Your task to perform on an android device: Search for pizza restaurants on Maps Image 0: 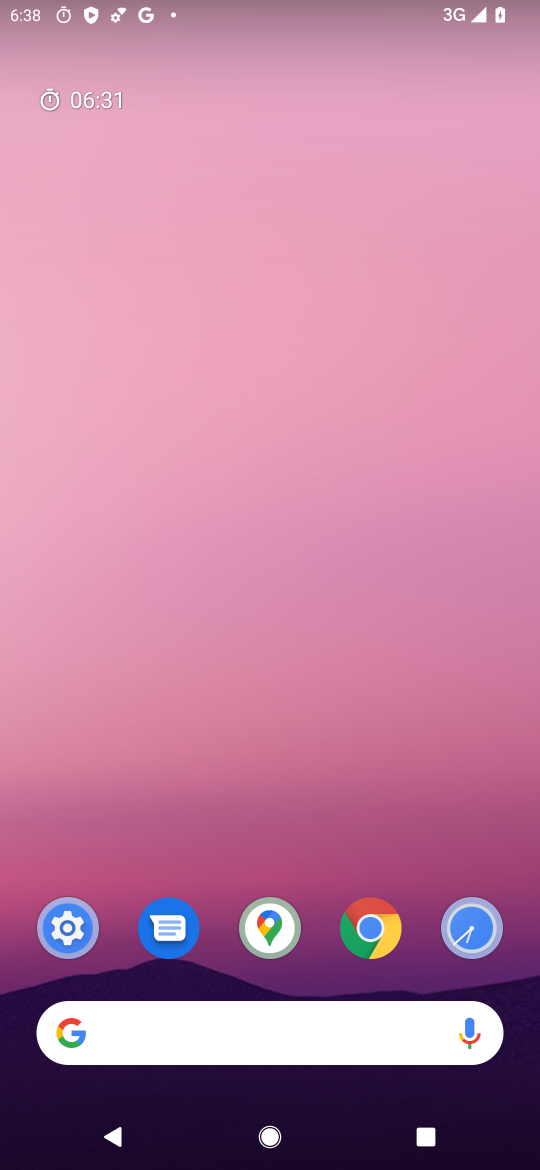
Step 0: drag from (277, 822) to (284, 216)
Your task to perform on an android device: Search for pizza restaurants on Maps Image 1: 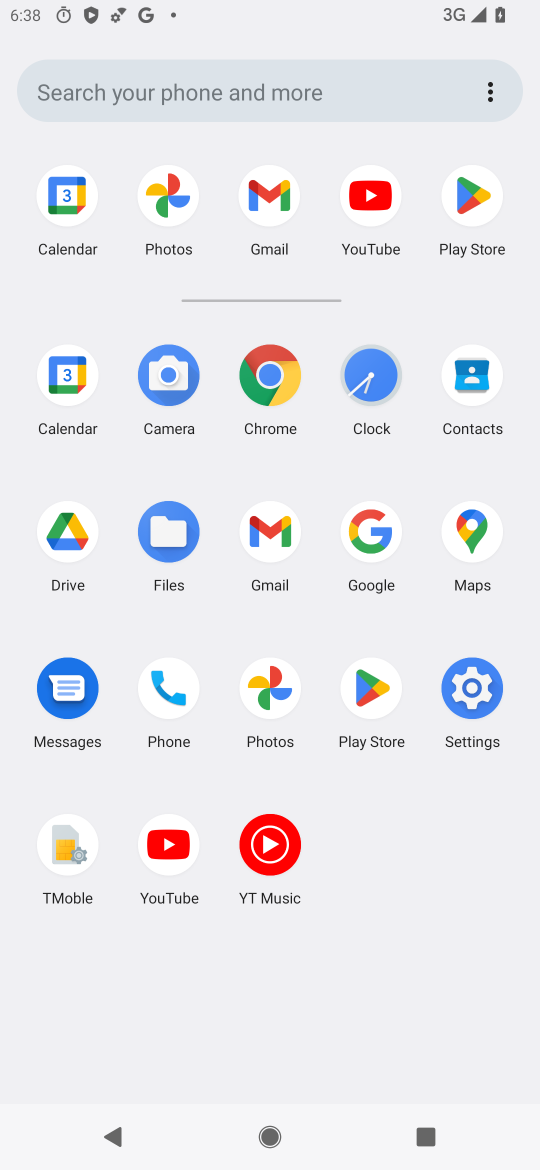
Step 1: click (472, 542)
Your task to perform on an android device: Search for pizza restaurants on Maps Image 2: 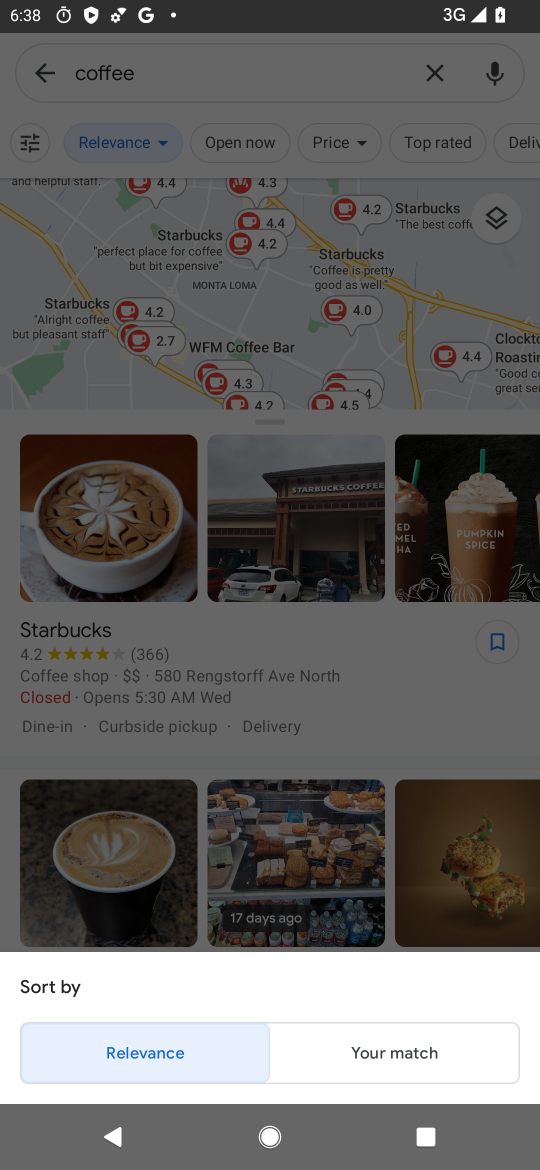
Step 2: click (212, 1063)
Your task to perform on an android device: Search for pizza restaurants on Maps Image 3: 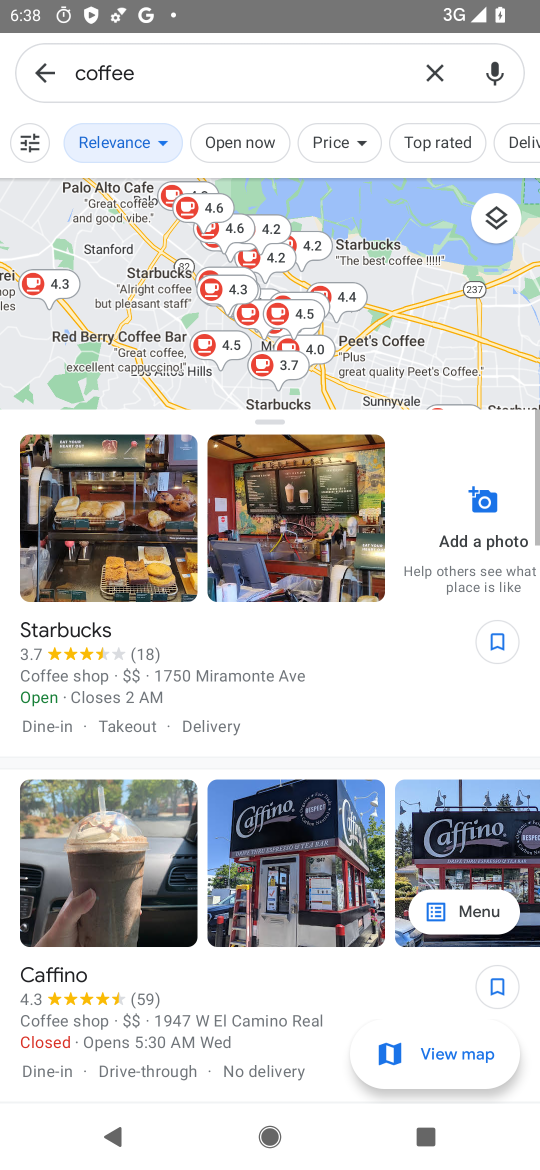
Step 3: click (426, 73)
Your task to perform on an android device: Search for pizza restaurants on Maps Image 4: 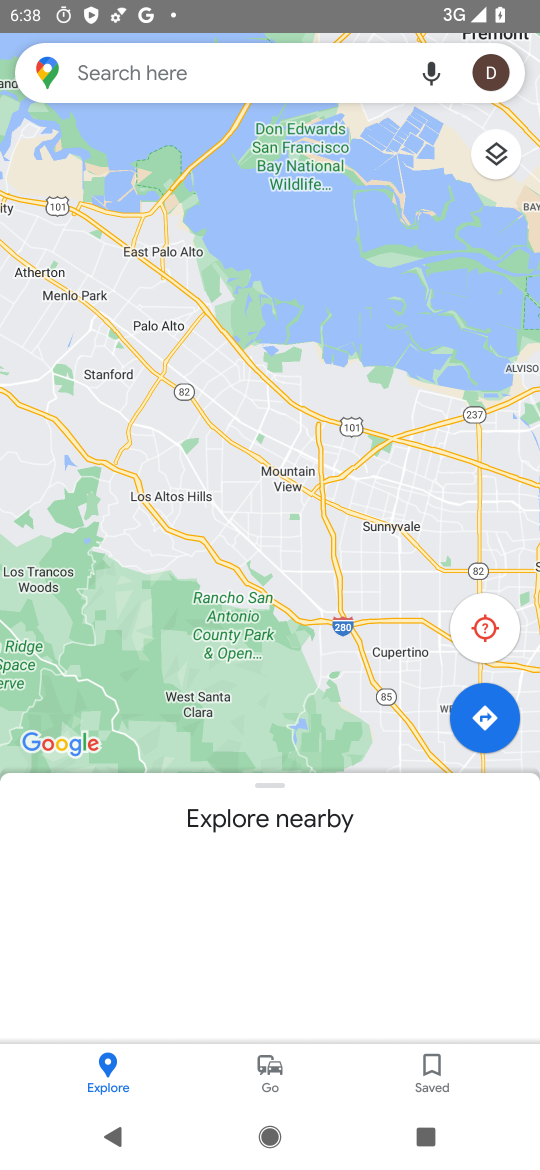
Step 4: click (253, 83)
Your task to perform on an android device: Search for pizza restaurants on Maps Image 5: 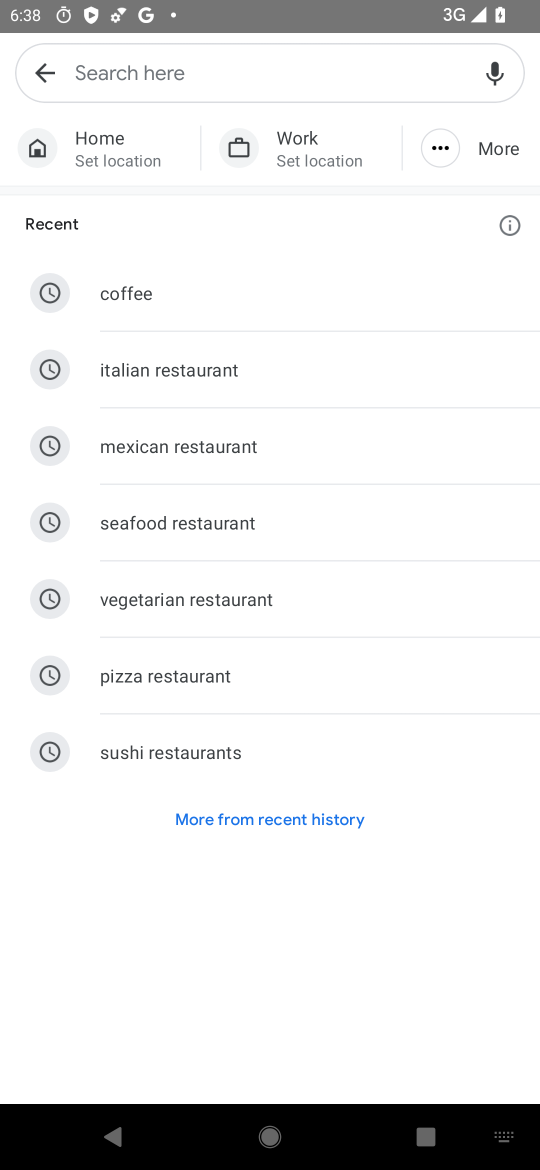
Step 5: type "pizza restaurants"
Your task to perform on an android device: Search for pizza restaurants on Maps Image 6: 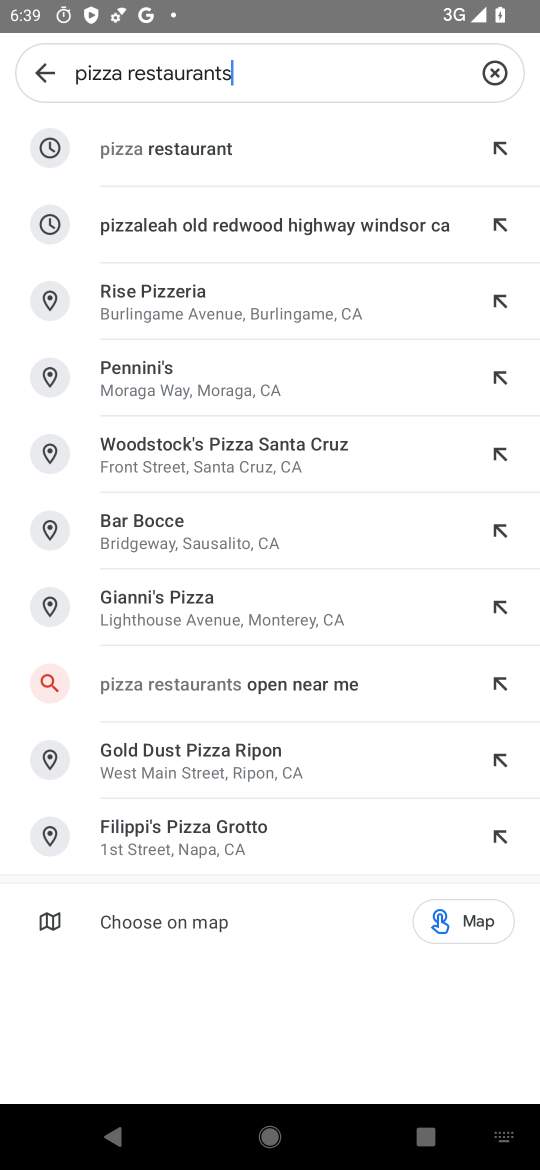
Step 6: click (278, 678)
Your task to perform on an android device: Search for pizza restaurants on Maps Image 7: 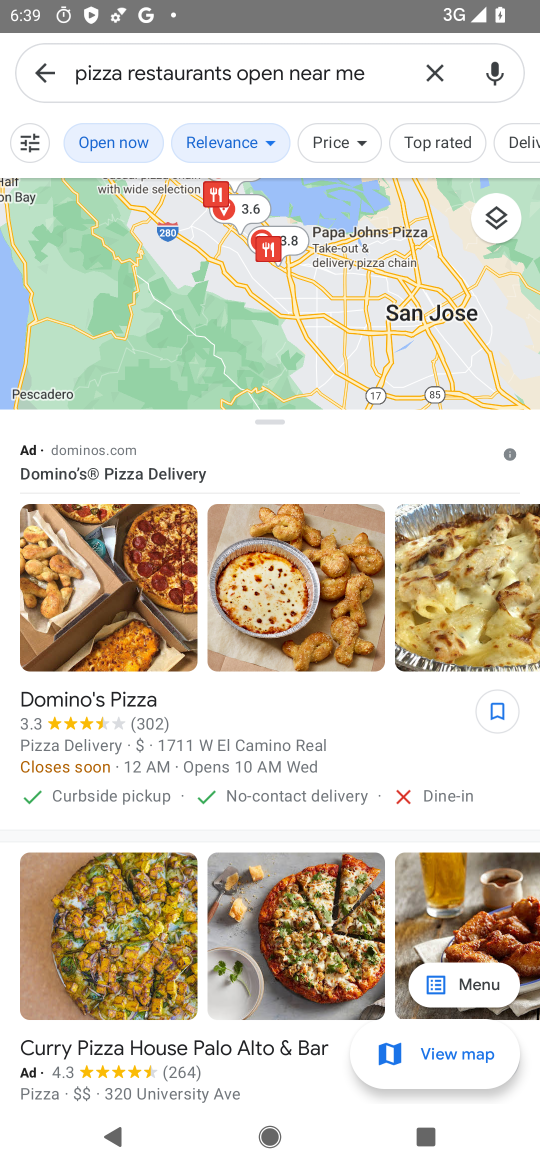
Step 7: task complete